Your task to perform on an android device: turn off notifications settings in the gmail app Image 0: 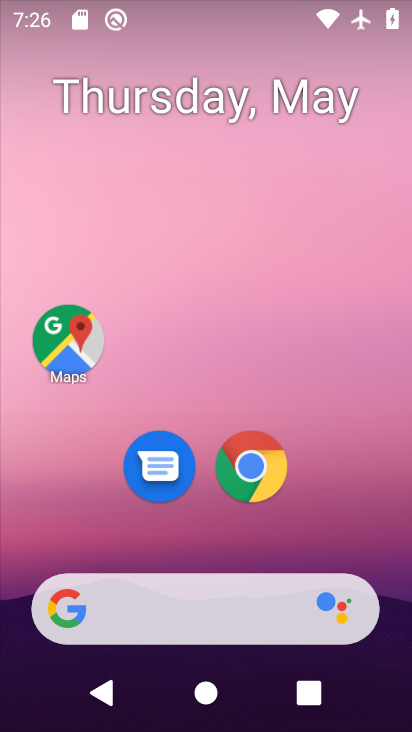
Step 0: drag from (388, 542) to (273, 153)
Your task to perform on an android device: turn off notifications settings in the gmail app Image 1: 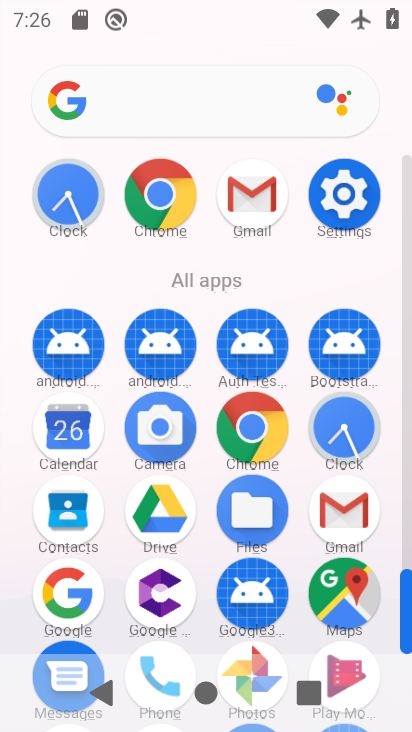
Step 1: click (268, 213)
Your task to perform on an android device: turn off notifications settings in the gmail app Image 2: 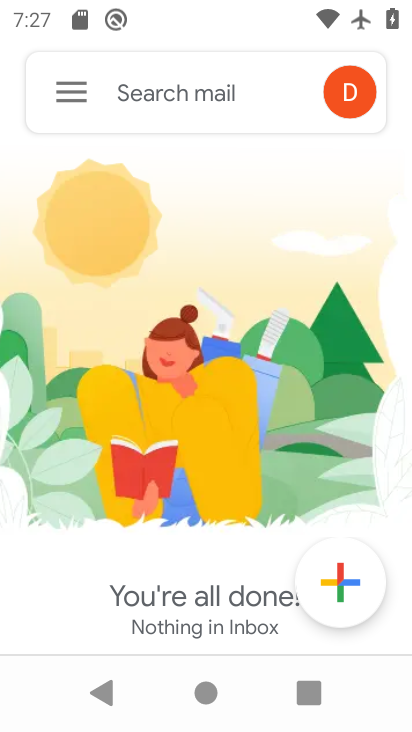
Step 2: click (91, 112)
Your task to perform on an android device: turn off notifications settings in the gmail app Image 3: 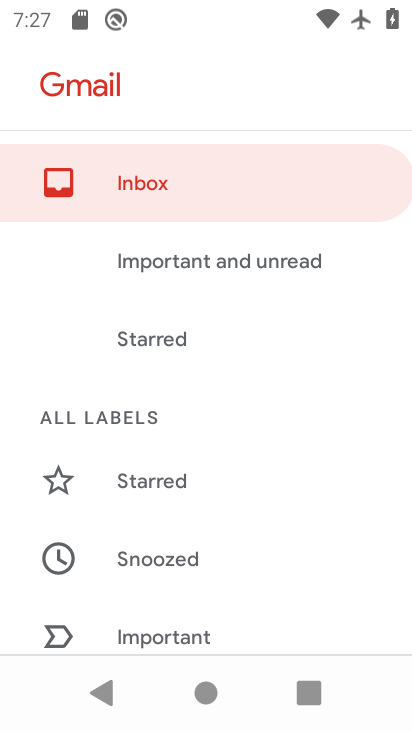
Step 3: drag from (180, 617) to (170, 86)
Your task to perform on an android device: turn off notifications settings in the gmail app Image 4: 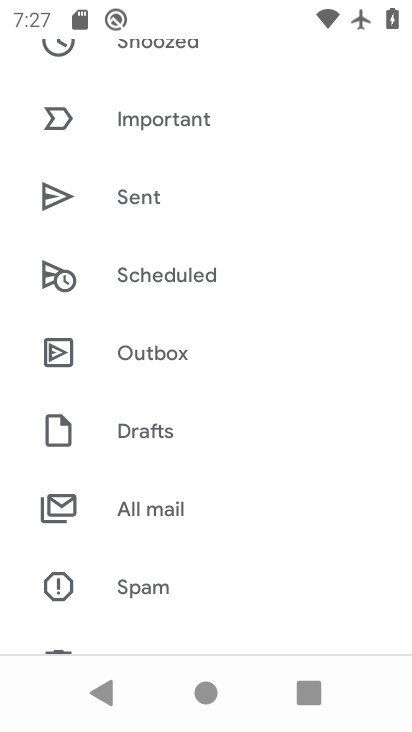
Step 4: drag from (208, 565) to (182, 155)
Your task to perform on an android device: turn off notifications settings in the gmail app Image 5: 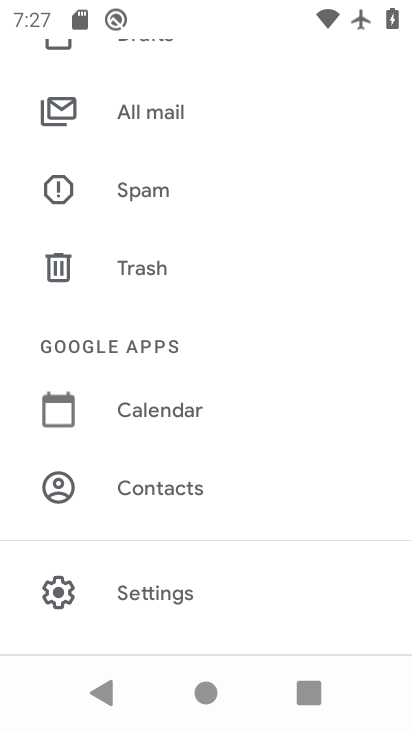
Step 5: click (215, 581)
Your task to perform on an android device: turn off notifications settings in the gmail app Image 6: 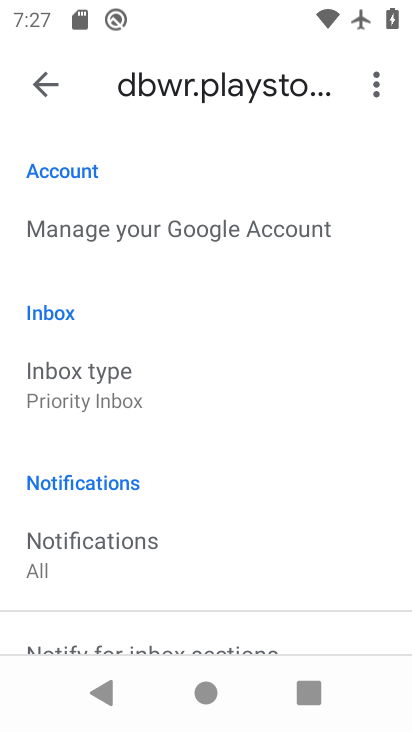
Step 6: click (177, 545)
Your task to perform on an android device: turn off notifications settings in the gmail app Image 7: 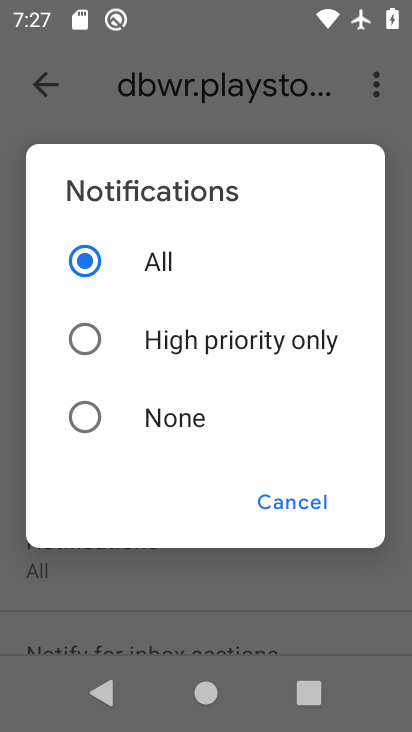
Step 7: click (165, 354)
Your task to perform on an android device: turn off notifications settings in the gmail app Image 8: 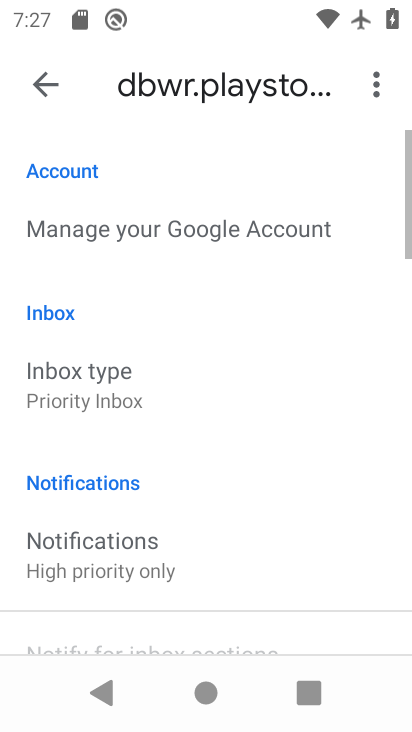
Step 8: task complete